Your task to perform on an android device: turn off airplane mode Image 0: 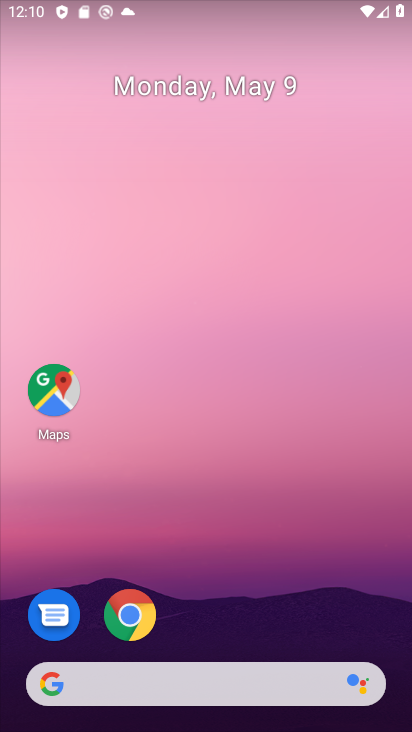
Step 0: drag from (239, 546) to (221, 35)
Your task to perform on an android device: turn off airplane mode Image 1: 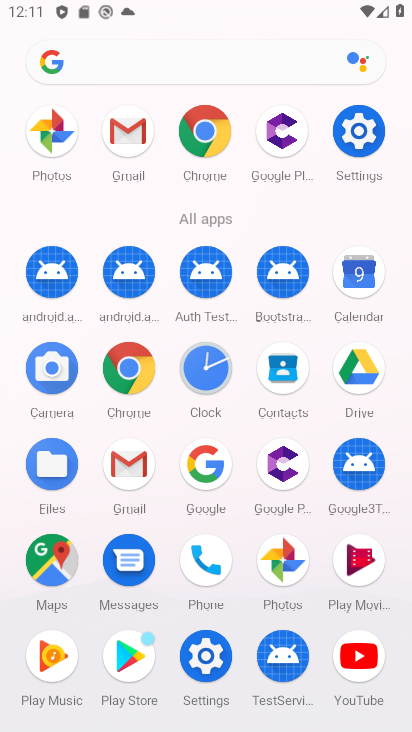
Step 1: click (359, 133)
Your task to perform on an android device: turn off airplane mode Image 2: 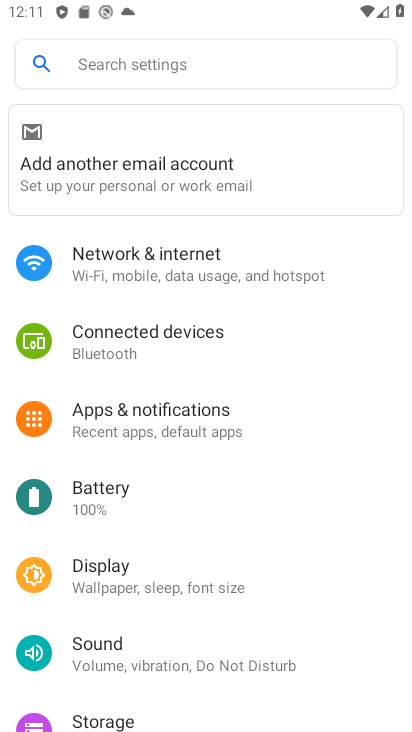
Step 2: click (199, 267)
Your task to perform on an android device: turn off airplane mode Image 3: 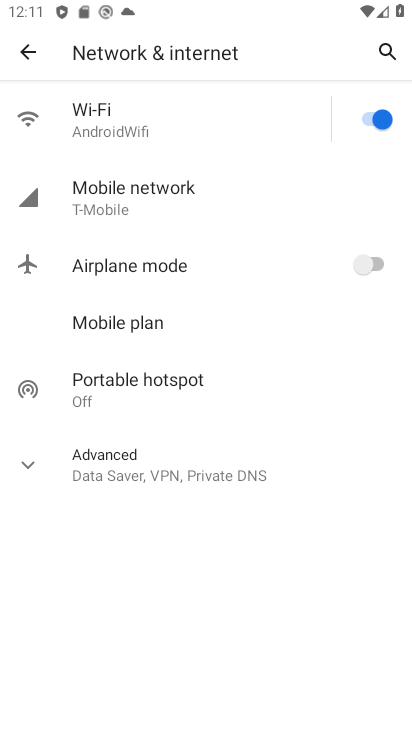
Step 3: task complete